Your task to perform on an android device: turn off notifications in google photos Image 0: 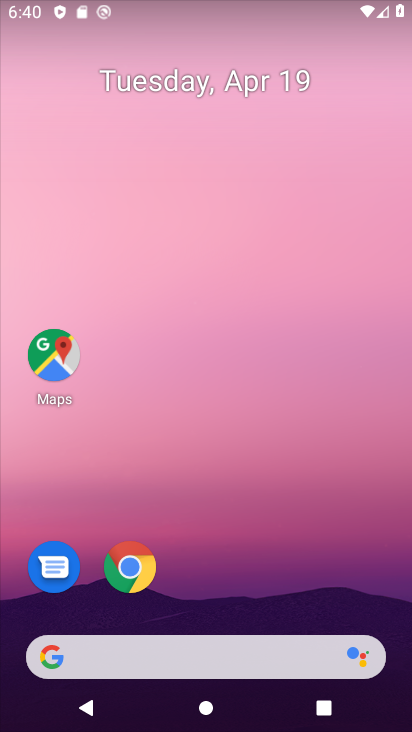
Step 0: drag from (259, 577) to (230, 34)
Your task to perform on an android device: turn off notifications in google photos Image 1: 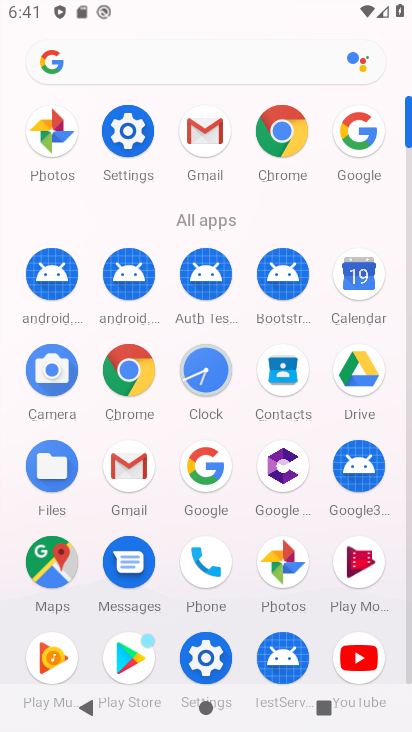
Step 1: click (65, 126)
Your task to perform on an android device: turn off notifications in google photos Image 2: 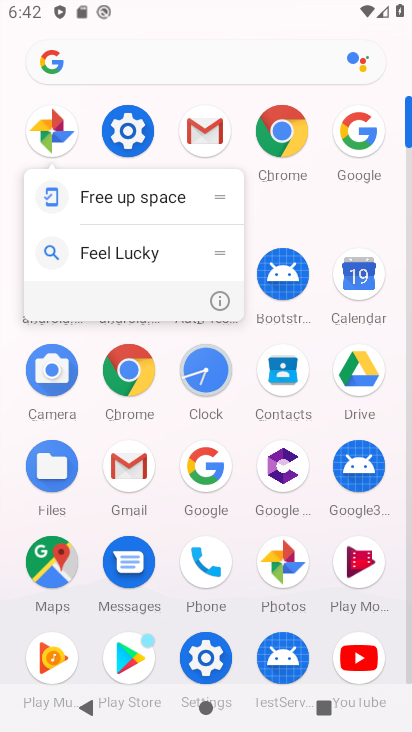
Step 2: click (220, 304)
Your task to perform on an android device: turn off notifications in google photos Image 3: 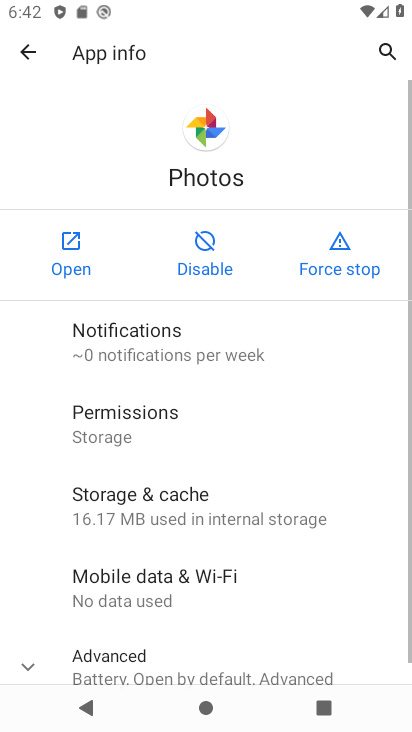
Step 3: click (196, 328)
Your task to perform on an android device: turn off notifications in google photos Image 4: 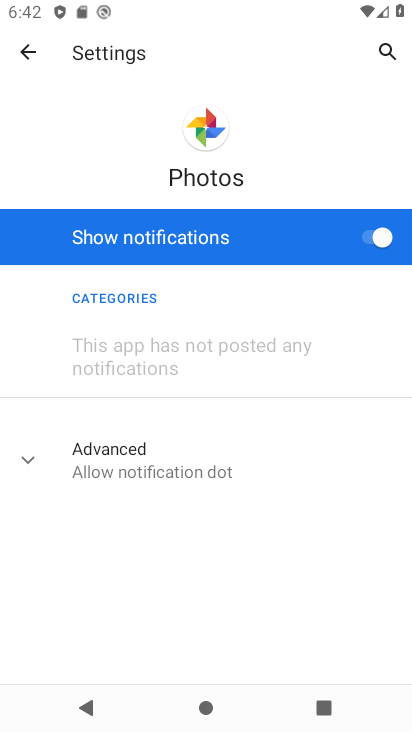
Step 4: click (379, 233)
Your task to perform on an android device: turn off notifications in google photos Image 5: 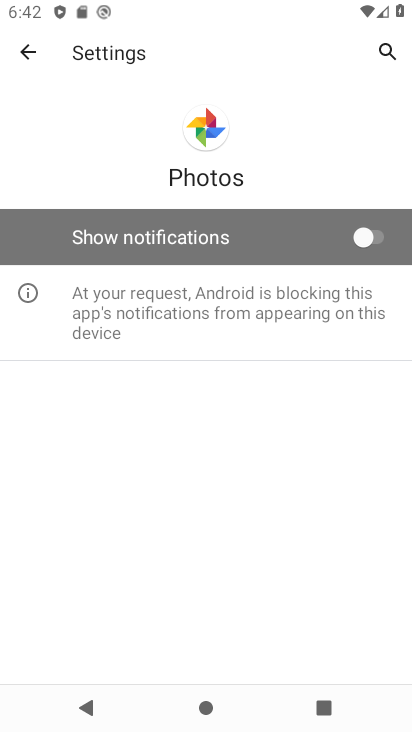
Step 5: task complete